Your task to perform on an android device: turn smart compose on in the gmail app Image 0: 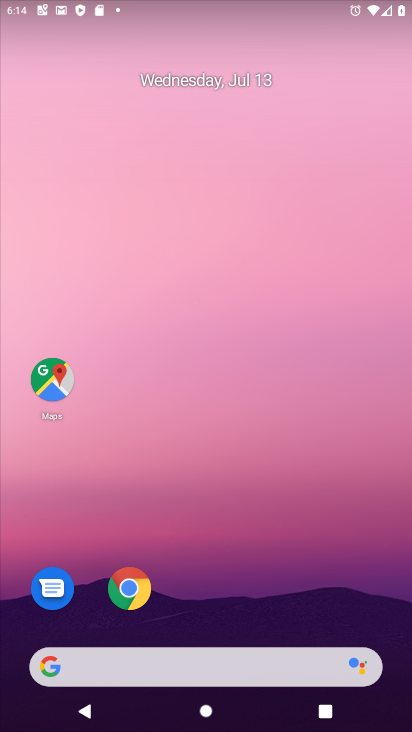
Step 0: drag from (179, 500) to (179, 44)
Your task to perform on an android device: turn smart compose on in the gmail app Image 1: 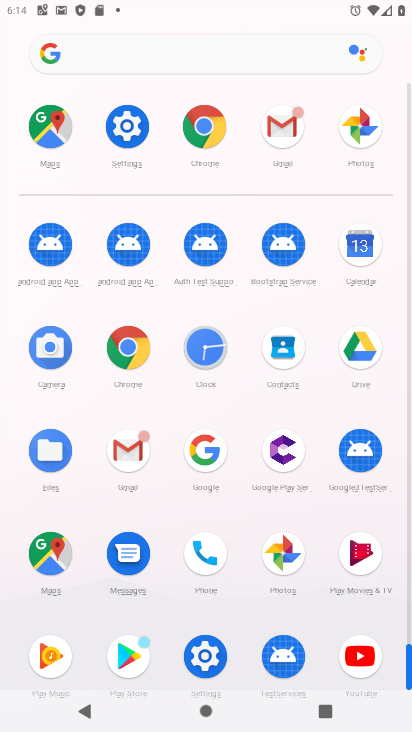
Step 1: click (282, 126)
Your task to perform on an android device: turn smart compose on in the gmail app Image 2: 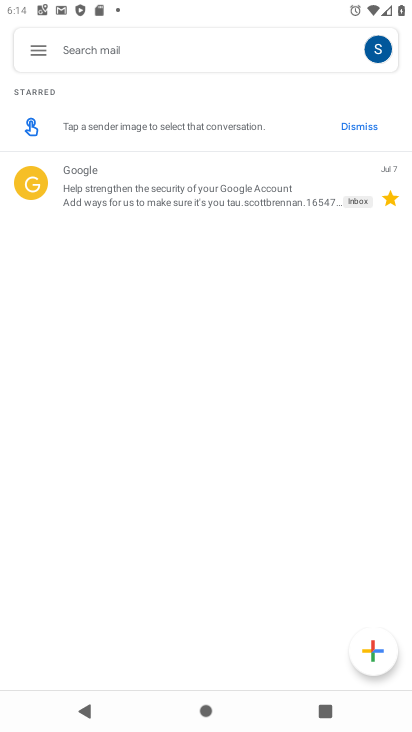
Step 2: click (165, 200)
Your task to perform on an android device: turn smart compose on in the gmail app Image 3: 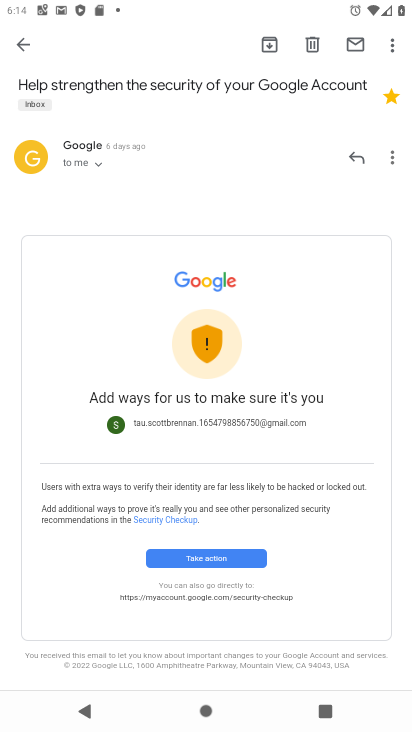
Step 3: click (26, 37)
Your task to perform on an android device: turn smart compose on in the gmail app Image 4: 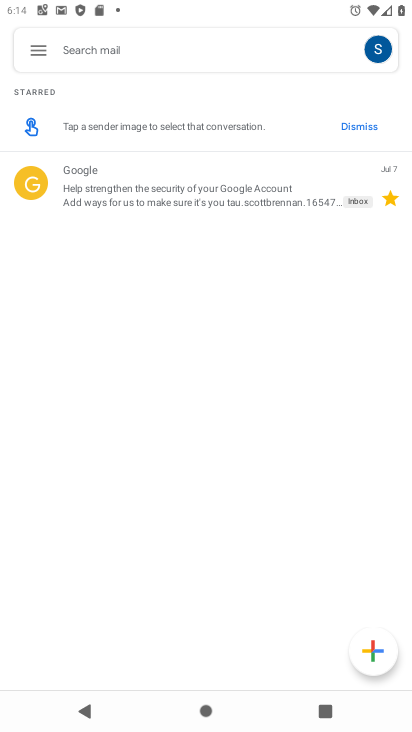
Step 4: click (36, 46)
Your task to perform on an android device: turn smart compose on in the gmail app Image 5: 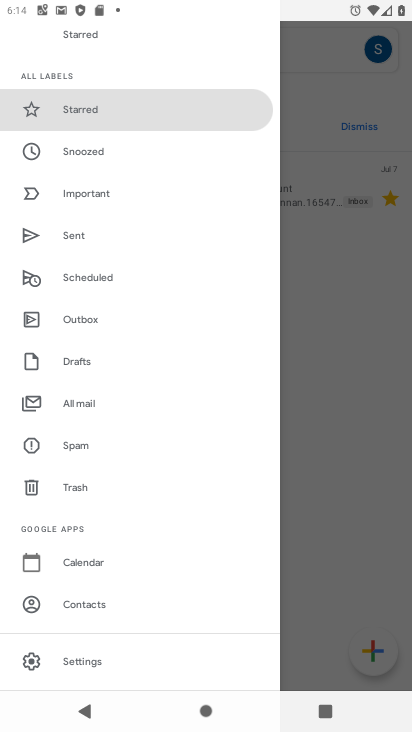
Step 5: click (89, 656)
Your task to perform on an android device: turn smart compose on in the gmail app Image 6: 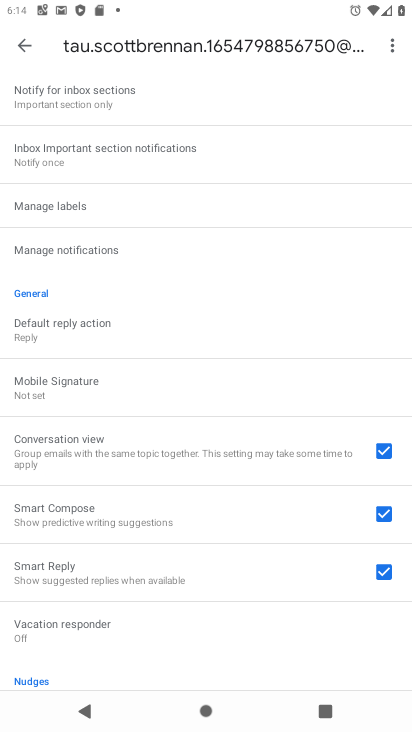
Step 6: task complete